Your task to perform on an android device: Open calendar and show me the fourth week of next month Image 0: 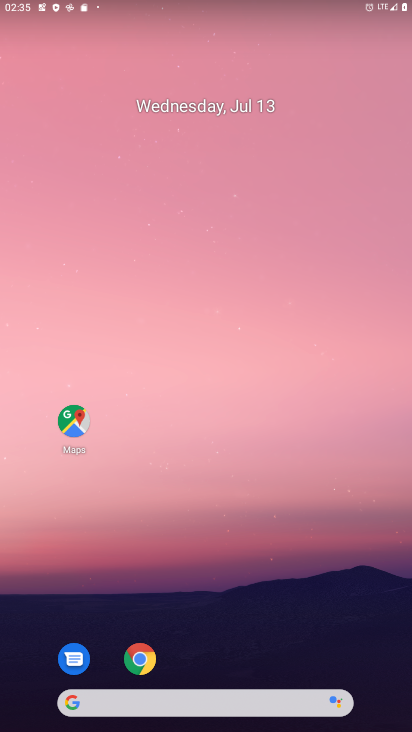
Step 0: drag from (213, 727) to (213, 211)
Your task to perform on an android device: Open calendar and show me the fourth week of next month Image 1: 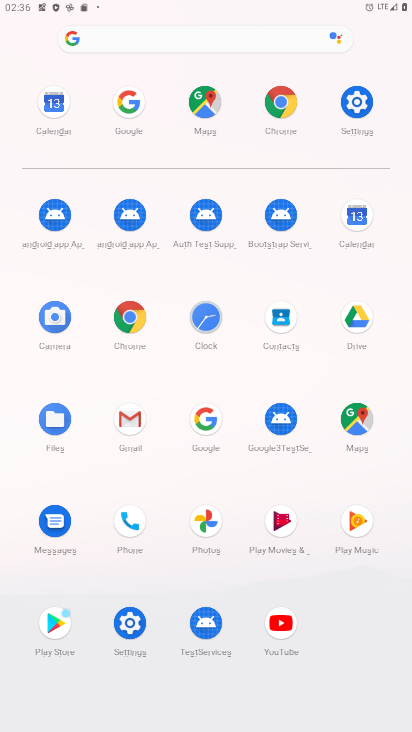
Step 1: click (357, 213)
Your task to perform on an android device: Open calendar and show me the fourth week of next month Image 2: 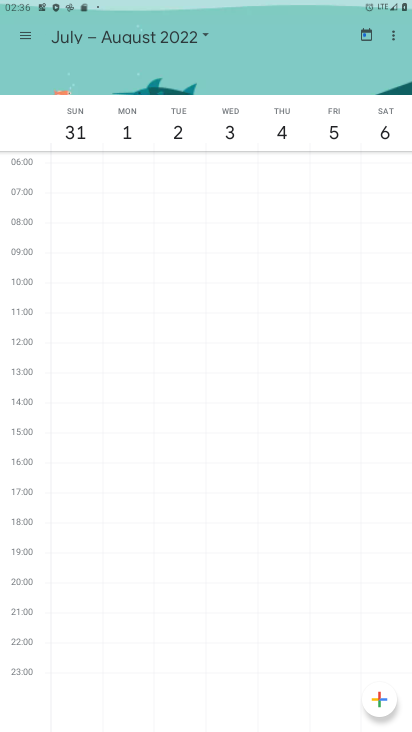
Step 2: click (203, 31)
Your task to perform on an android device: Open calendar and show me the fourth week of next month Image 3: 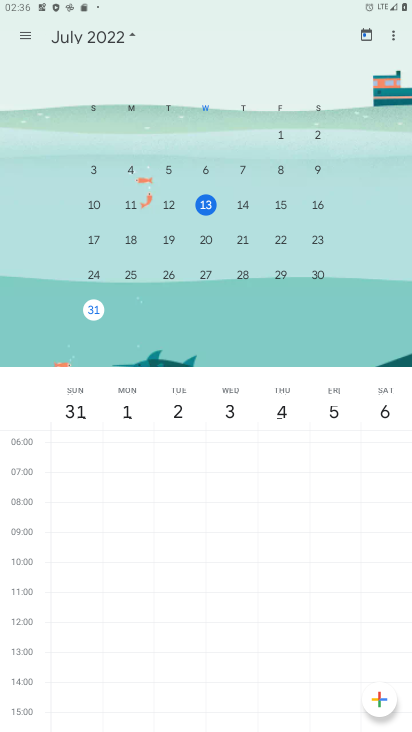
Step 3: click (127, 272)
Your task to perform on an android device: Open calendar and show me the fourth week of next month Image 4: 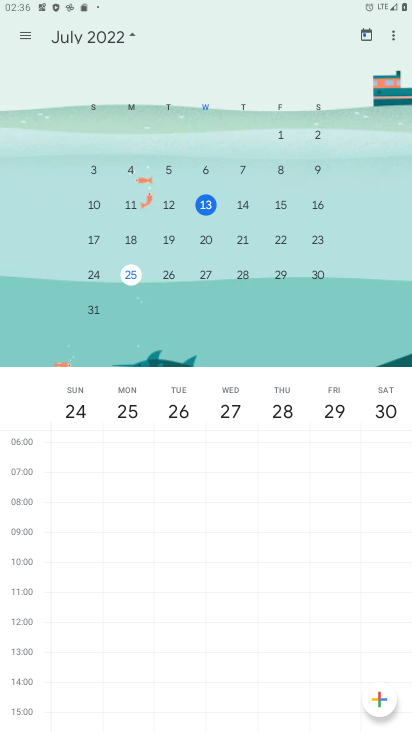
Step 4: click (127, 271)
Your task to perform on an android device: Open calendar and show me the fourth week of next month Image 5: 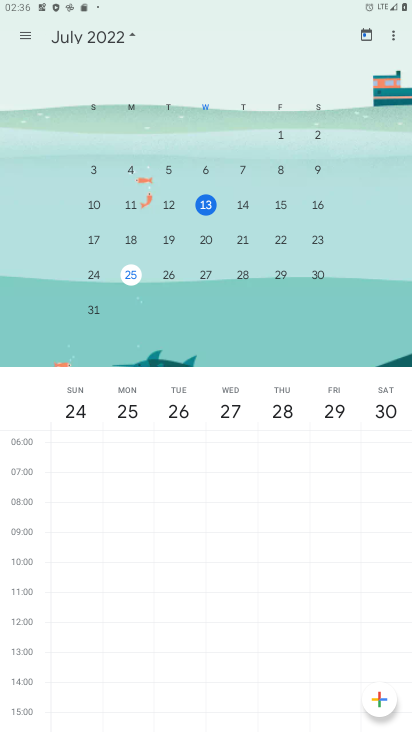
Step 5: click (127, 271)
Your task to perform on an android device: Open calendar and show me the fourth week of next month Image 6: 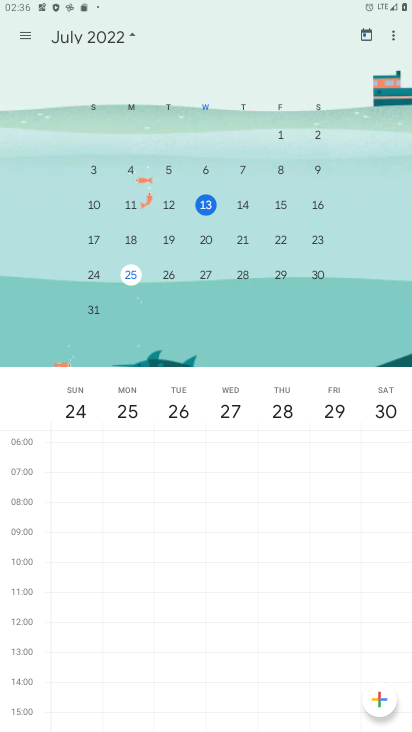
Step 6: click (128, 270)
Your task to perform on an android device: Open calendar and show me the fourth week of next month Image 7: 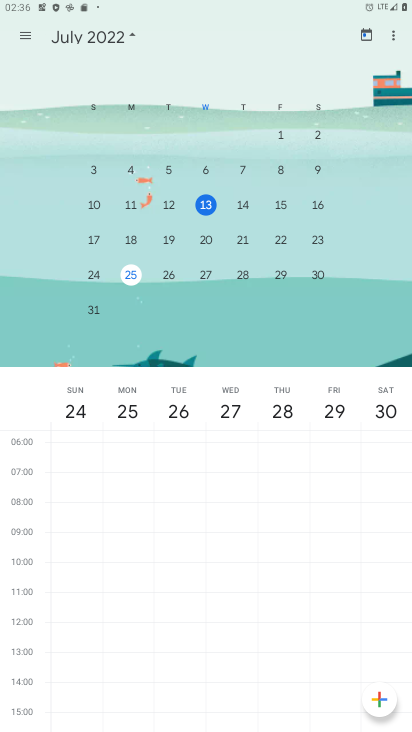
Step 7: click (19, 29)
Your task to perform on an android device: Open calendar and show me the fourth week of next month Image 8: 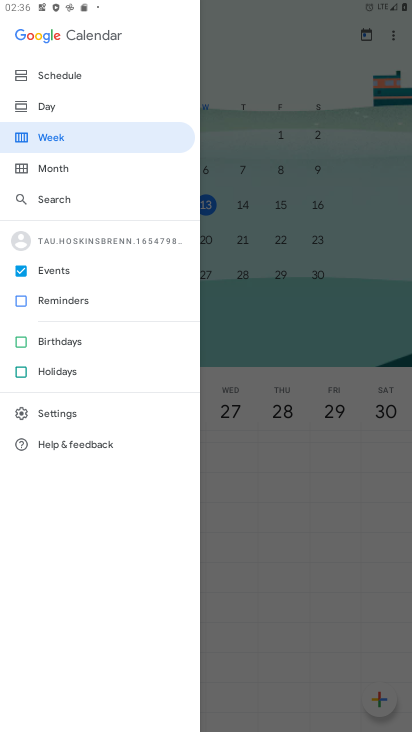
Step 8: click (72, 131)
Your task to perform on an android device: Open calendar and show me the fourth week of next month Image 9: 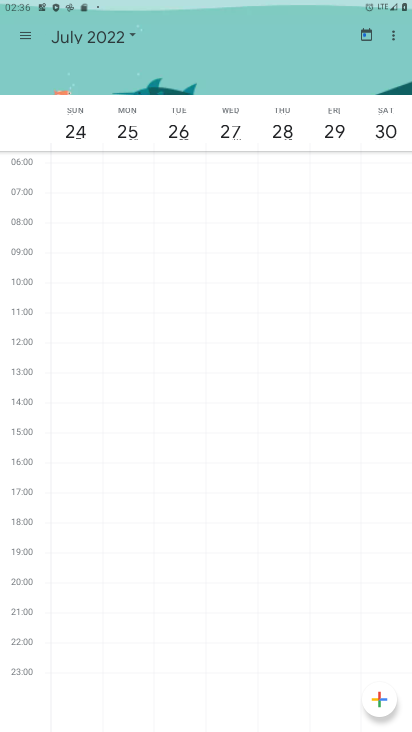
Step 9: task complete